Your task to perform on an android device: Show the shopping cart on ebay.com. Search for bose soundsport free on ebay.com, select the first entry, add it to the cart, then select checkout. Image 0: 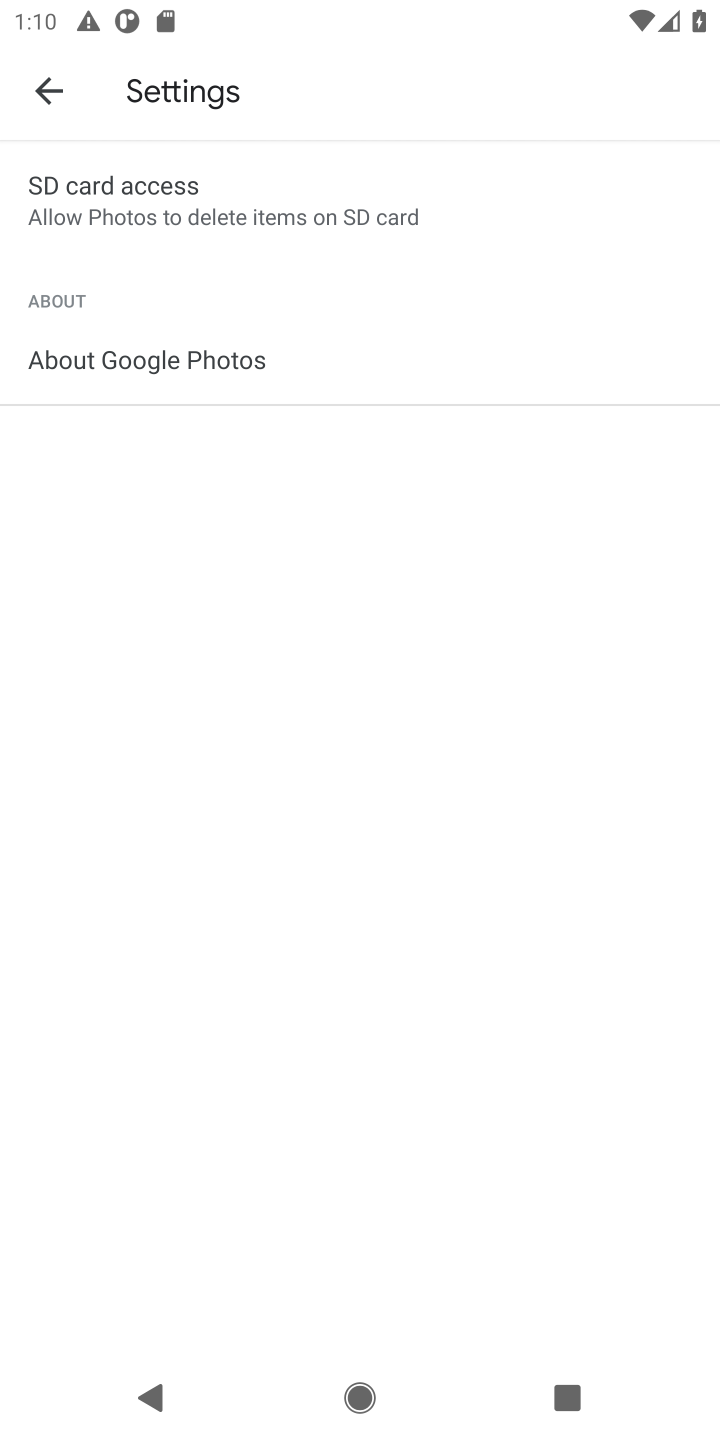
Step 0: press home button
Your task to perform on an android device: Show the shopping cart on ebay.com. Search for bose soundsport free on ebay.com, select the first entry, add it to the cart, then select checkout. Image 1: 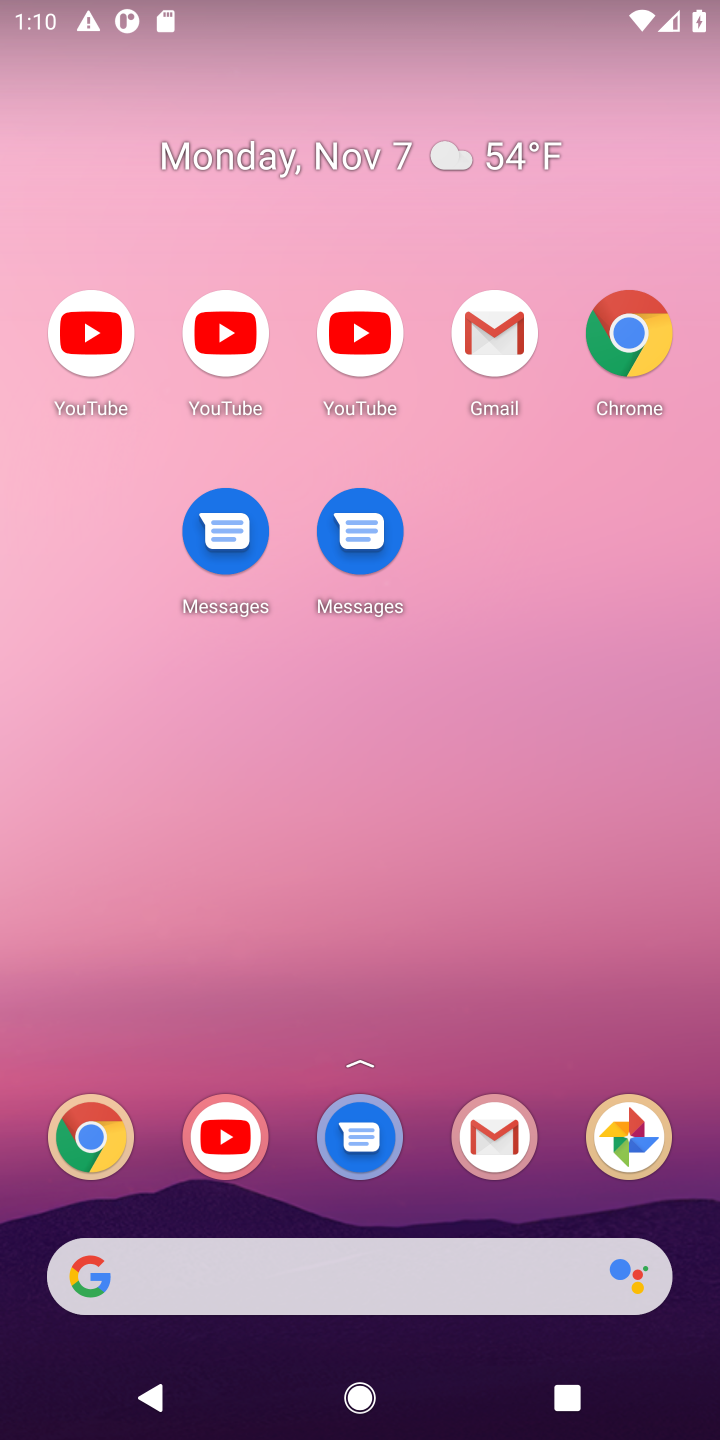
Step 1: drag from (444, 1131) to (491, 102)
Your task to perform on an android device: Show the shopping cart on ebay.com. Search for bose soundsport free on ebay.com, select the first entry, add it to the cart, then select checkout. Image 2: 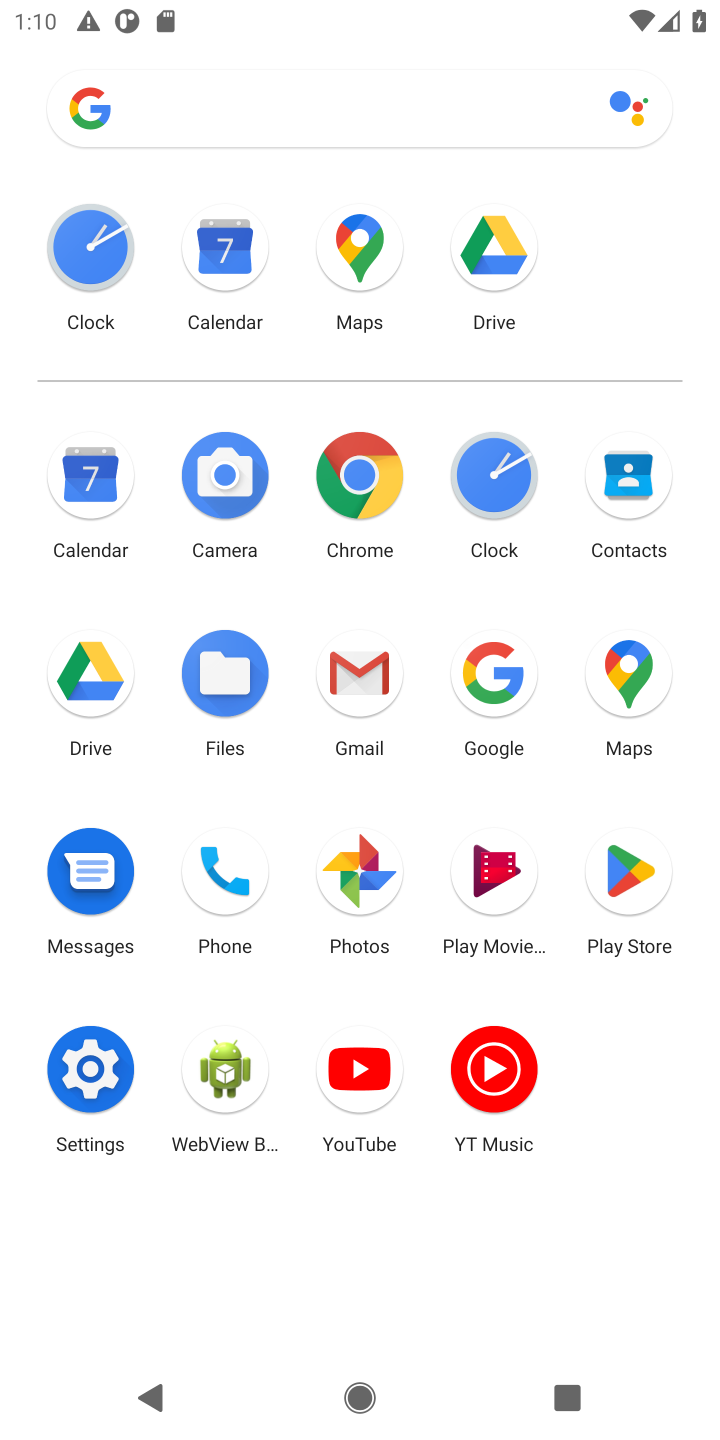
Step 2: click (354, 474)
Your task to perform on an android device: Show the shopping cart on ebay.com. Search for bose soundsport free on ebay.com, select the first entry, add it to the cart, then select checkout. Image 3: 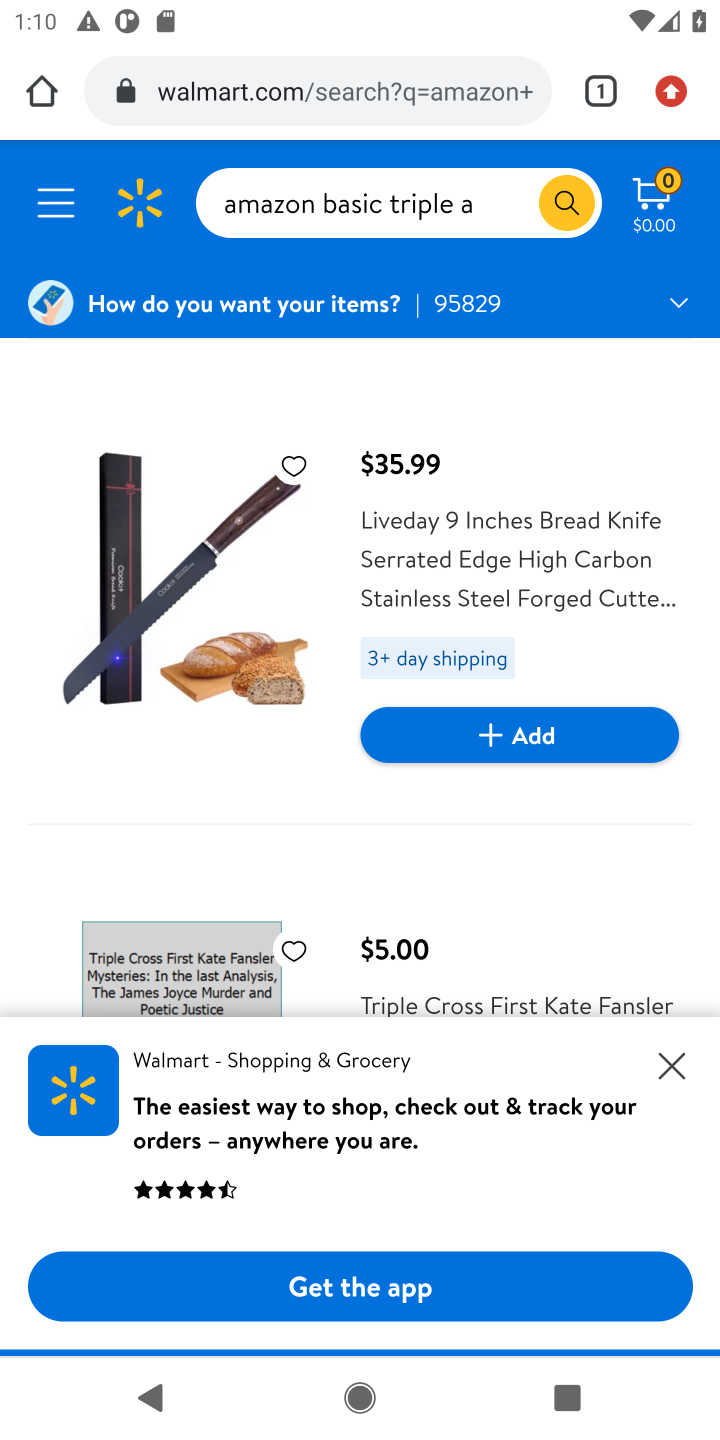
Step 3: click (381, 93)
Your task to perform on an android device: Show the shopping cart on ebay.com. Search for bose soundsport free on ebay.com, select the first entry, add it to the cart, then select checkout. Image 4: 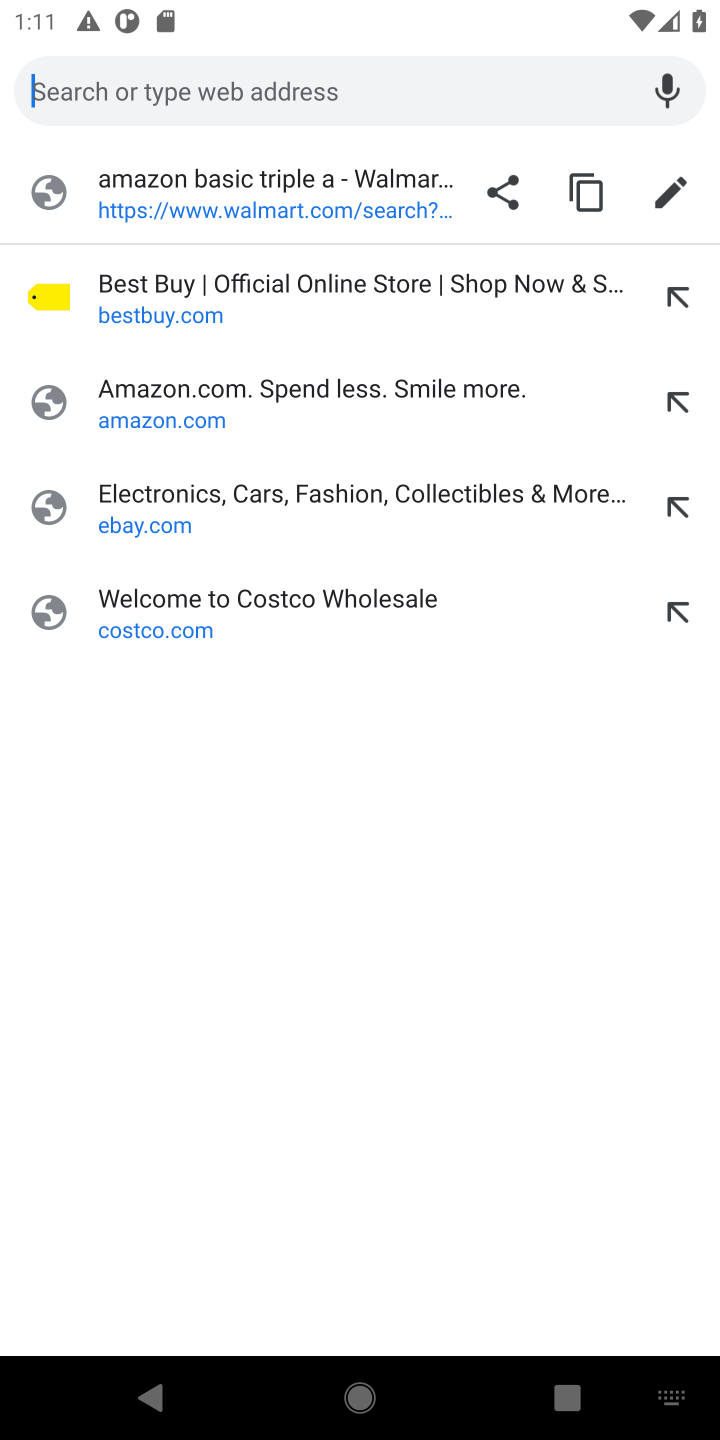
Step 4: type "ebay.com"
Your task to perform on an android device: Show the shopping cart on ebay.com. Search for bose soundsport free on ebay.com, select the first entry, add it to the cart, then select checkout. Image 5: 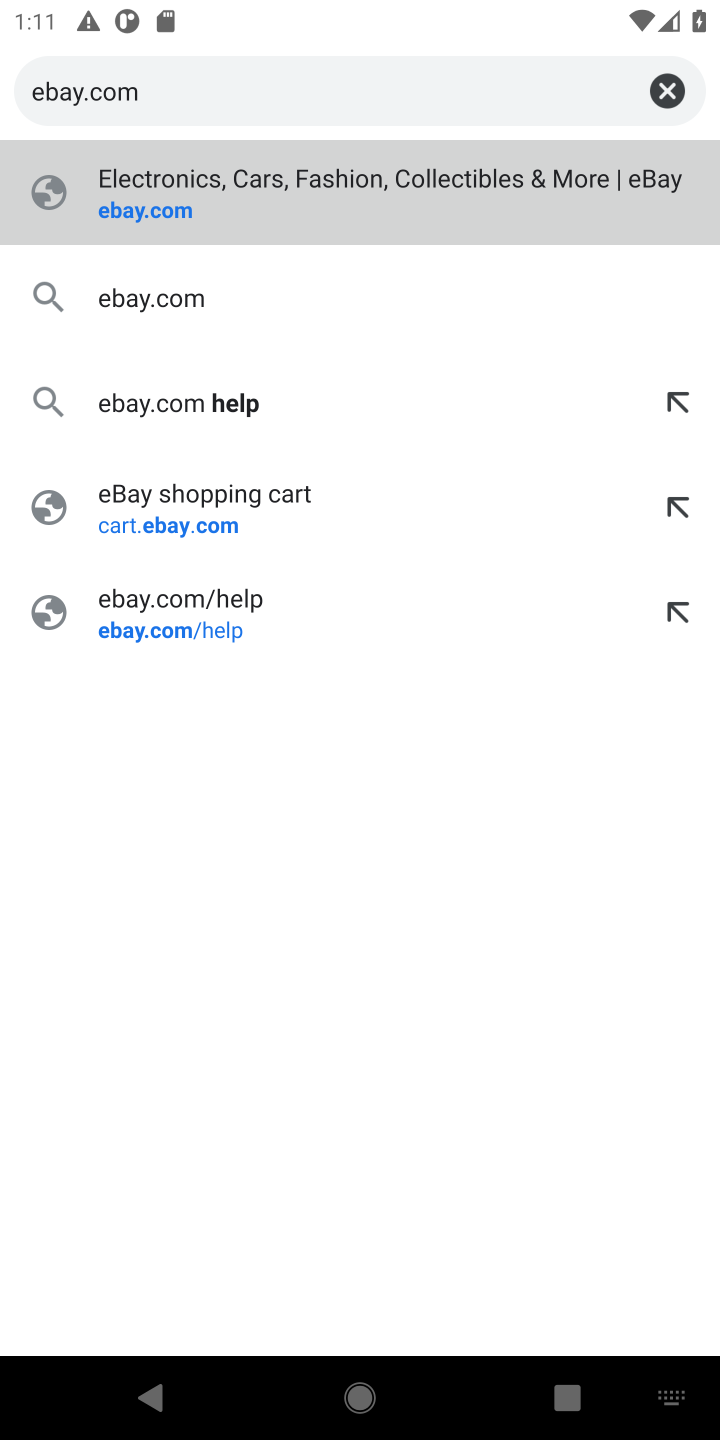
Step 5: press enter
Your task to perform on an android device: Show the shopping cart on ebay.com. Search for bose soundsport free on ebay.com, select the first entry, add it to the cart, then select checkout. Image 6: 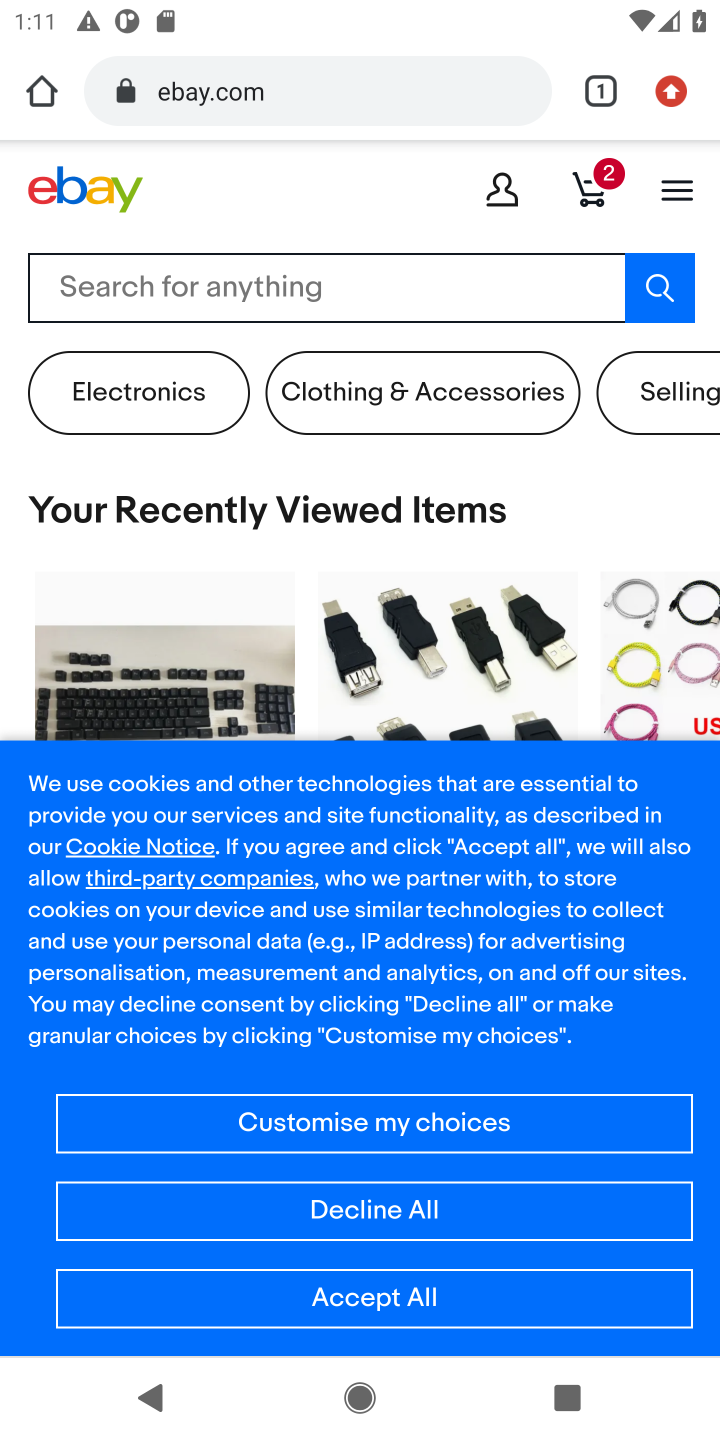
Step 6: click (612, 178)
Your task to perform on an android device: Show the shopping cart on ebay.com. Search for bose soundsport free on ebay.com, select the first entry, add it to the cart, then select checkout. Image 7: 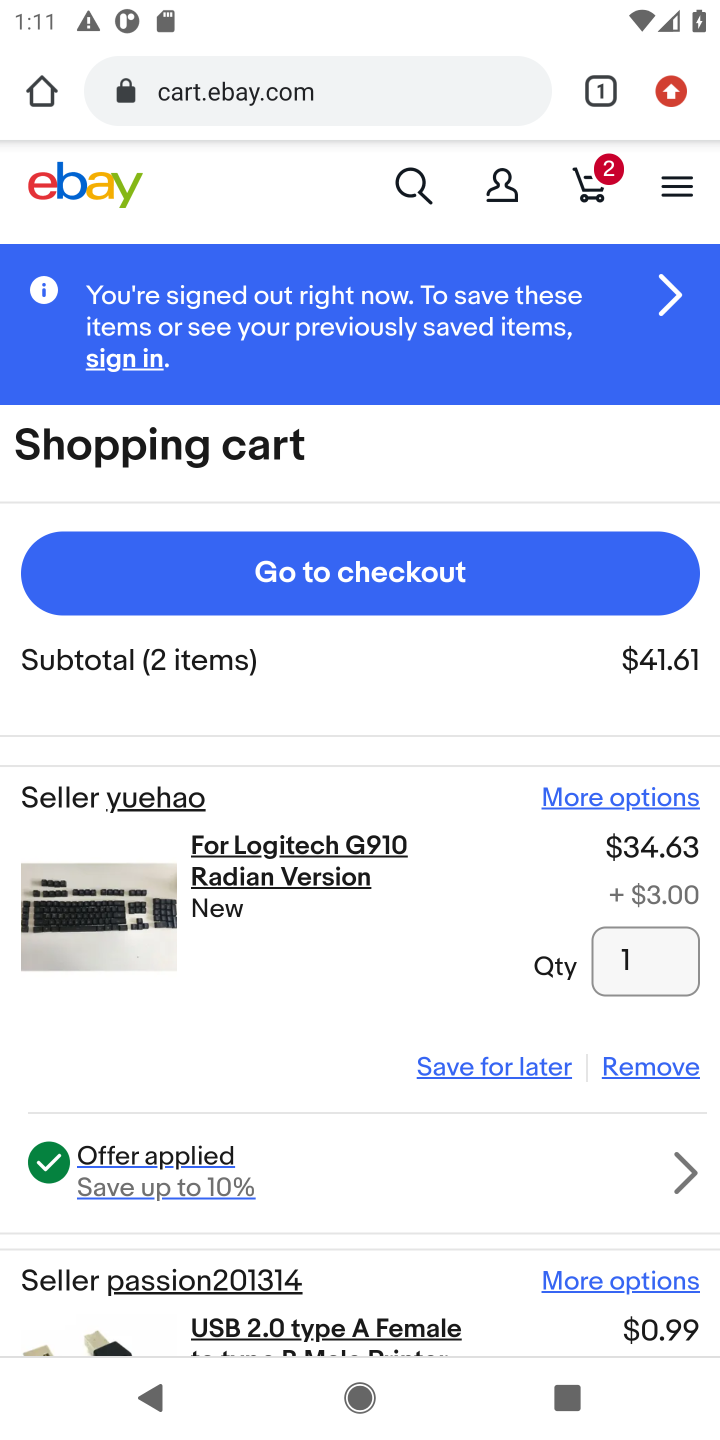
Step 7: click (415, 180)
Your task to perform on an android device: Show the shopping cart on ebay.com. Search for bose soundsport free on ebay.com, select the first entry, add it to the cart, then select checkout. Image 8: 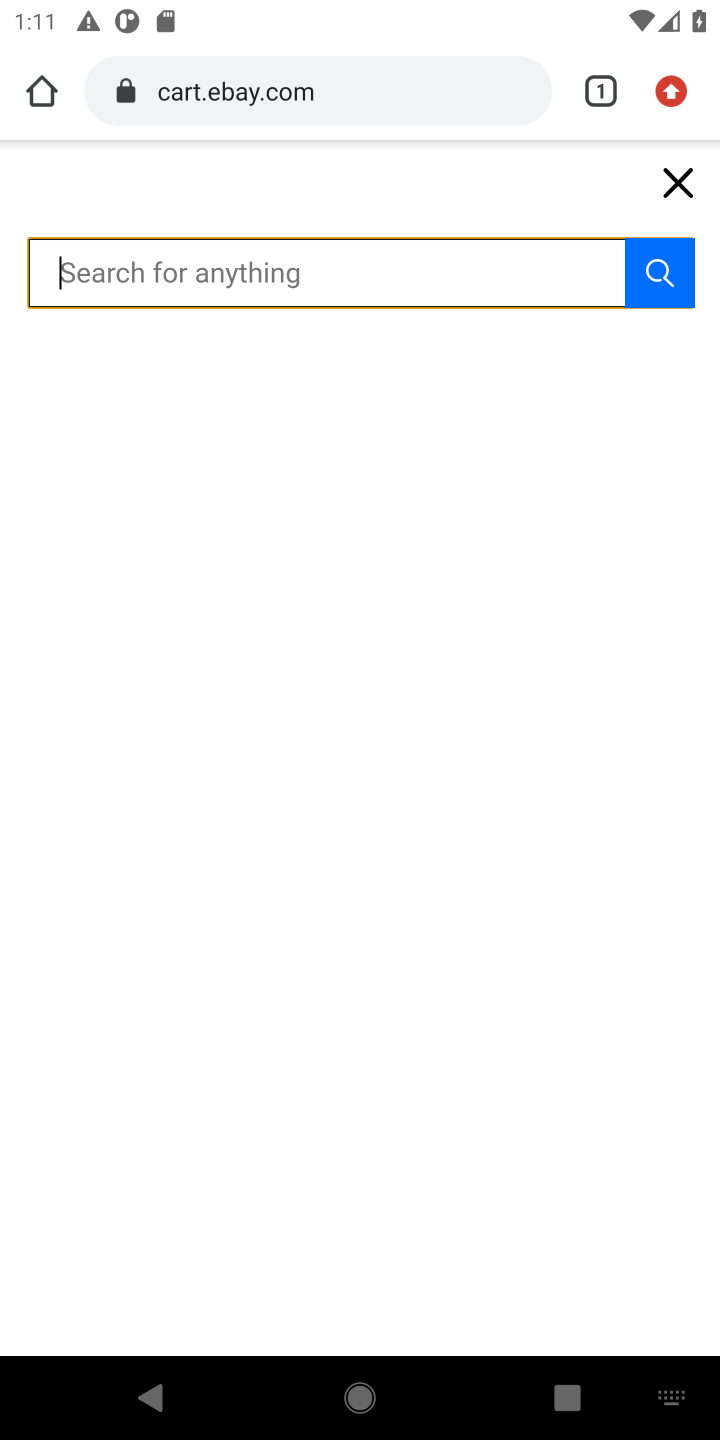
Step 8: click (510, 291)
Your task to perform on an android device: Show the shopping cart on ebay.com. Search for bose soundsport free on ebay.com, select the first entry, add it to the cart, then select checkout. Image 9: 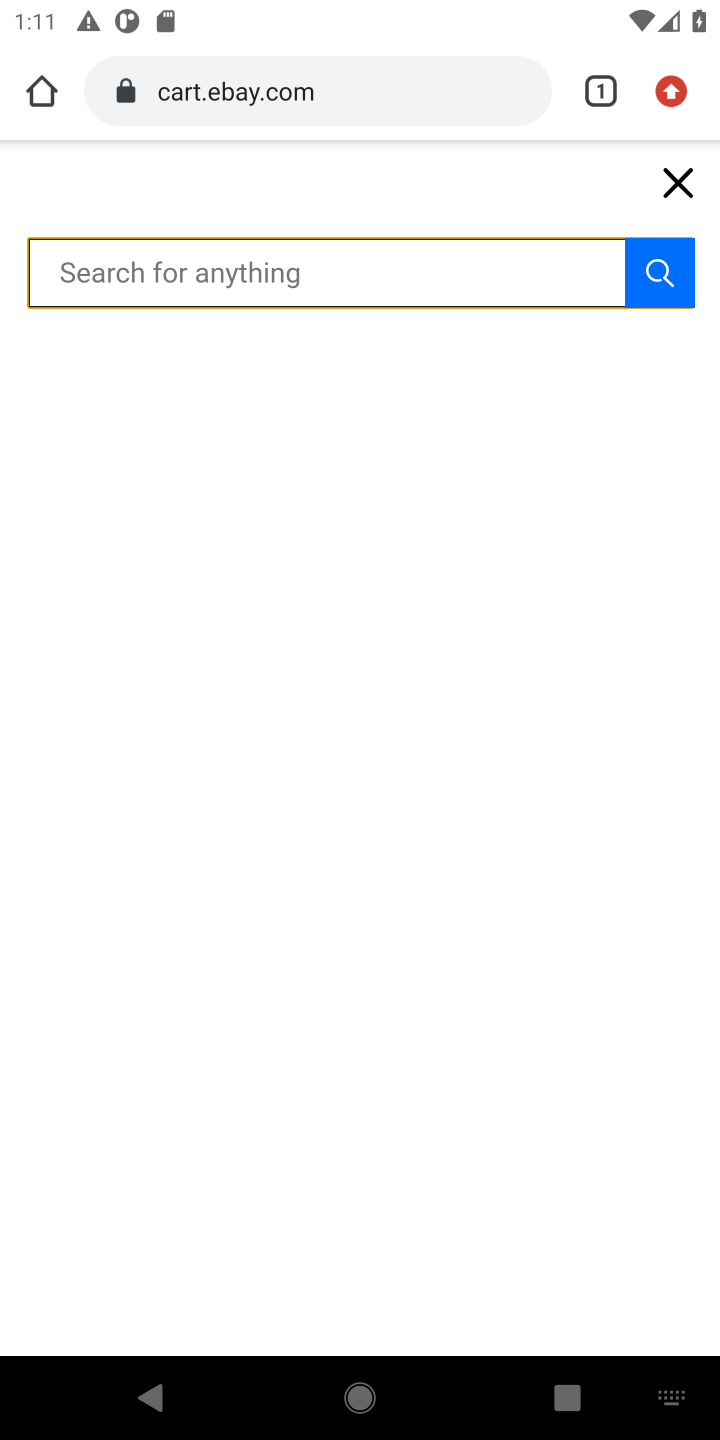
Step 9: type "bose soundsport free"
Your task to perform on an android device: Show the shopping cart on ebay.com. Search for bose soundsport free on ebay.com, select the first entry, add it to the cart, then select checkout. Image 10: 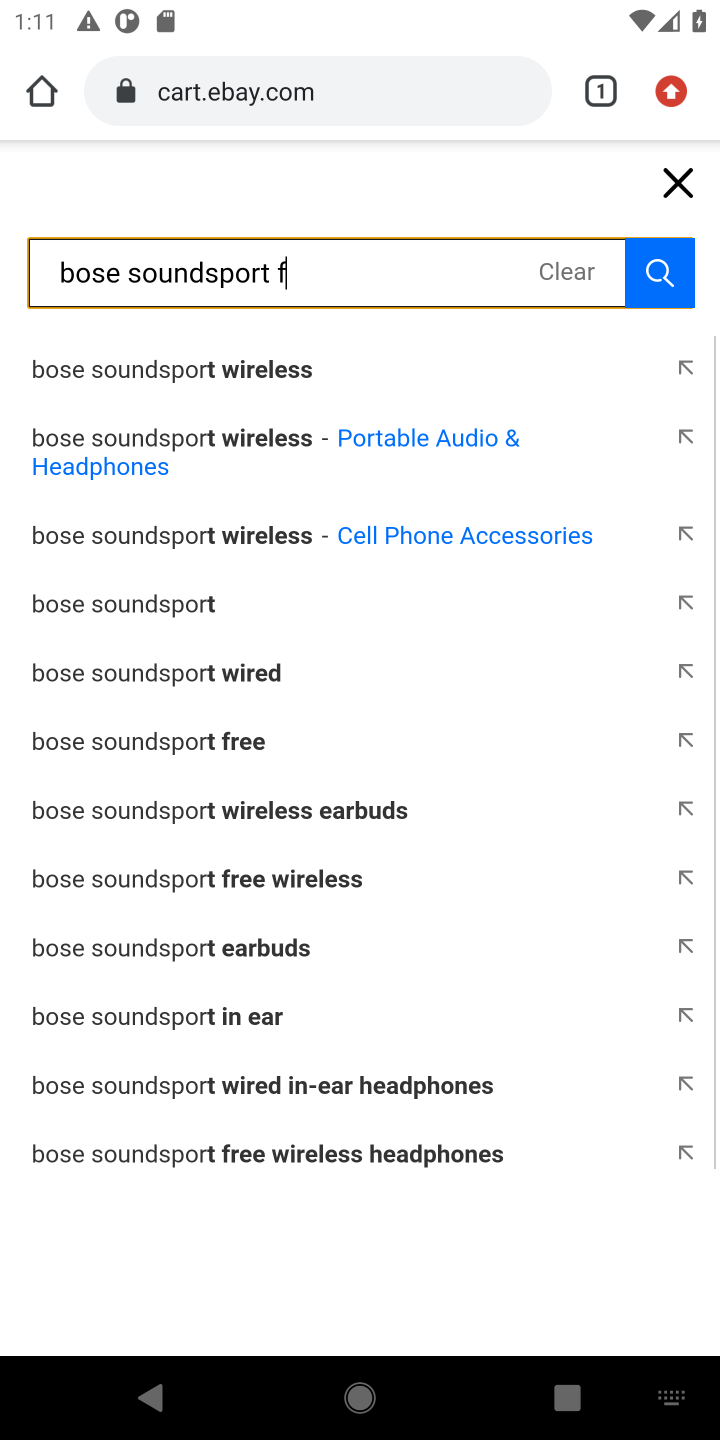
Step 10: press enter
Your task to perform on an android device: Show the shopping cart on ebay.com. Search for bose soundsport free on ebay.com, select the first entry, add it to the cart, then select checkout. Image 11: 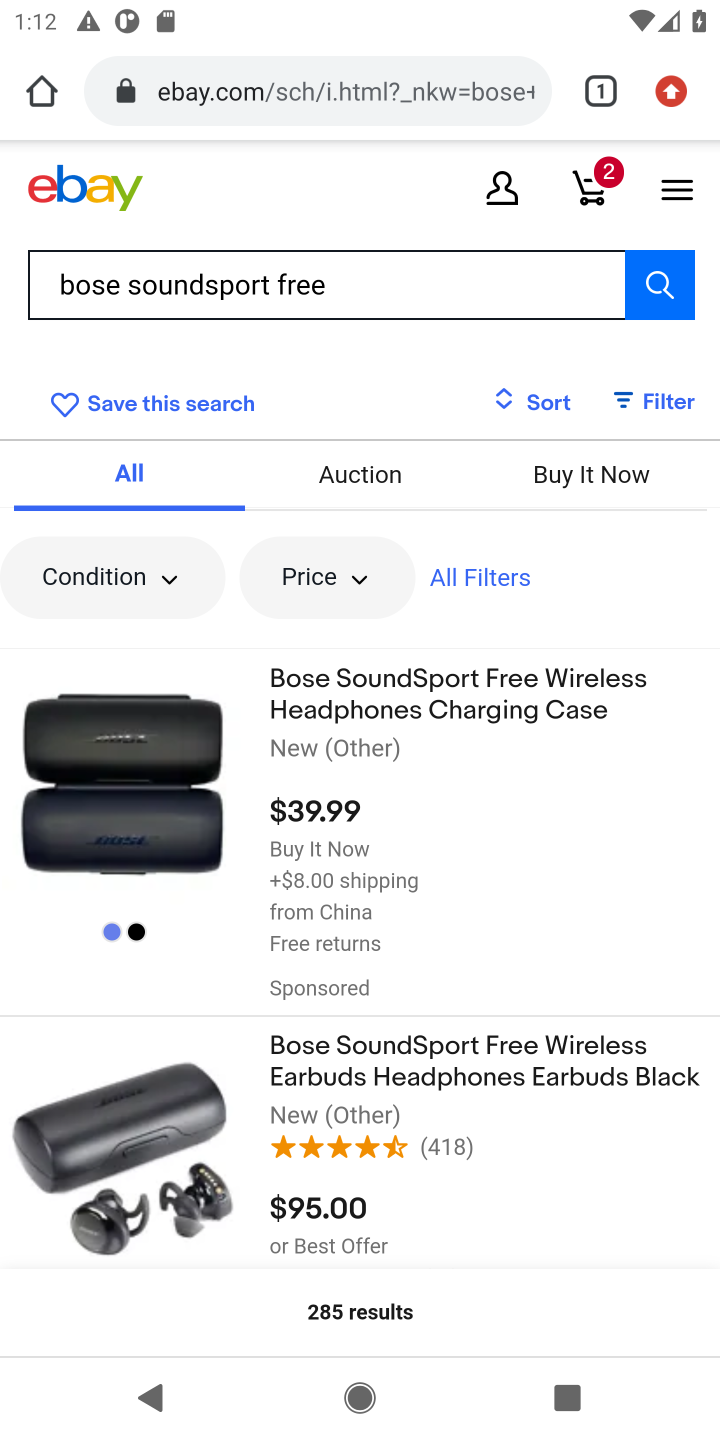
Step 11: click (512, 710)
Your task to perform on an android device: Show the shopping cart on ebay.com. Search for bose soundsport free on ebay.com, select the first entry, add it to the cart, then select checkout. Image 12: 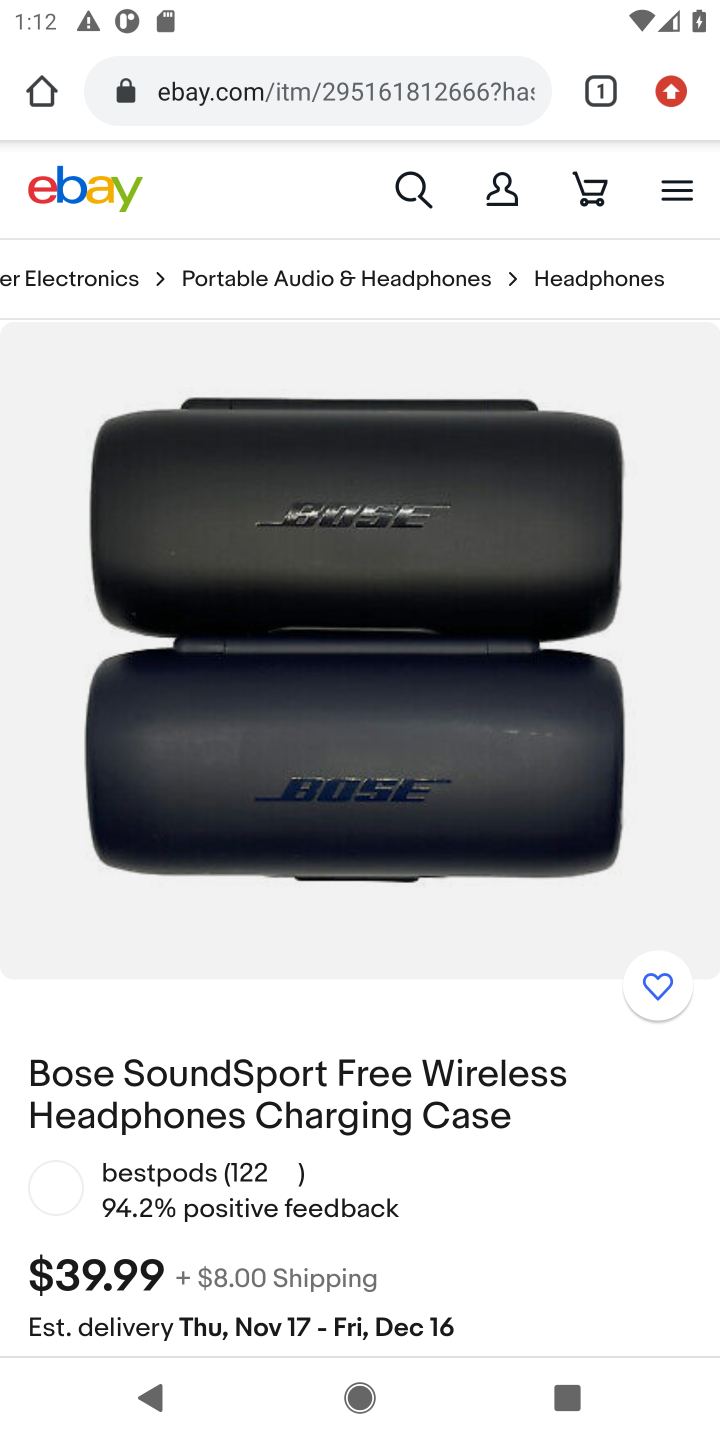
Step 12: drag from (430, 1084) to (367, 135)
Your task to perform on an android device: Show the shopping cart on ebay.com. Search for bose soundsport free on ebay.com, select the first entry, add it to the cart, then select checkout. Image 13: 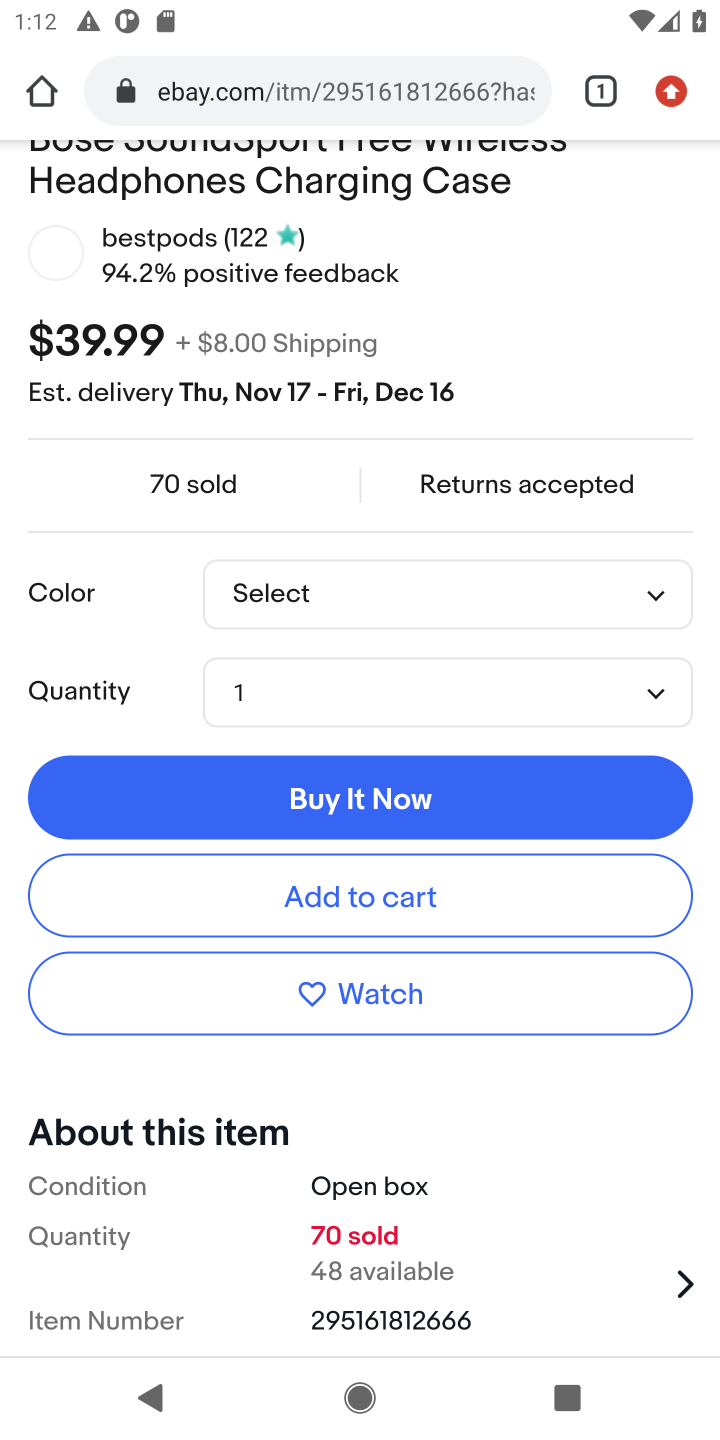
Step 13: drag from (335, 1115) to (384, 282)
Your task to perform on an android device: Show the shopping cart on ebay.com. Search for bose soundsport free on ebay.com, select the first entry, add it to the cart, then select checkout. Image 14: 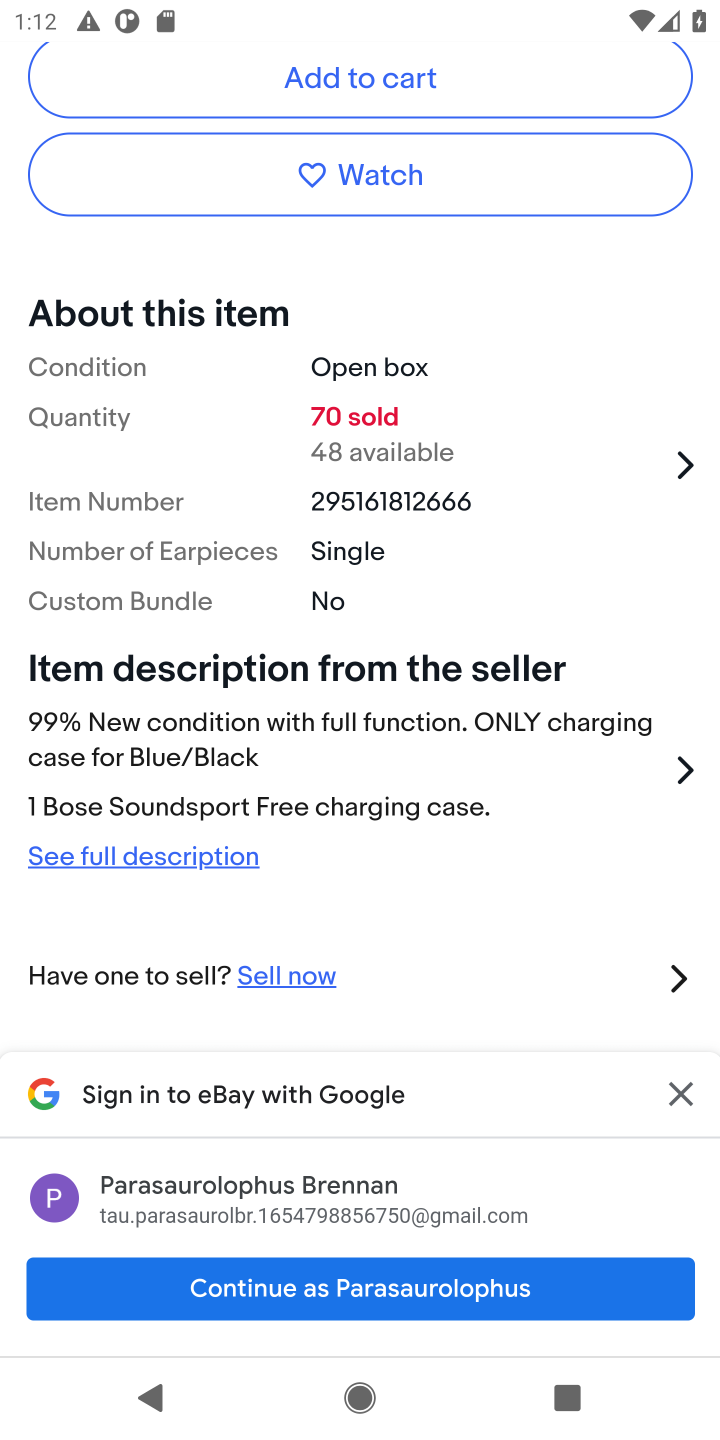
Step 14: drag from (400, 395) to (476, 1009)
Your task to perform on an android device: Show the shopping cart on ebay.com. Search for bose soundsport free on ebay.com, select the first entry, add it to the cart, then select checkout. Image 15: 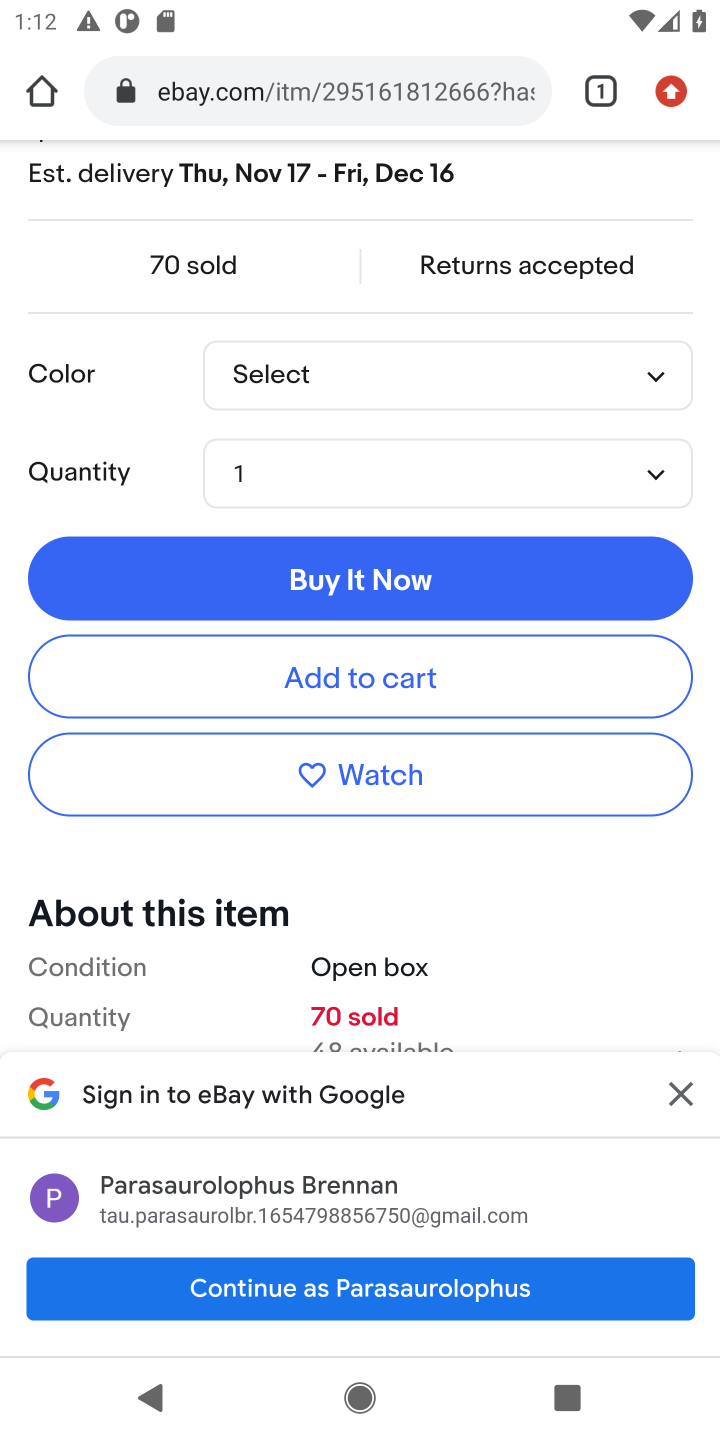
Step 15: click (366, 666)
Your task to perform on an android device: Show the shopping cart on ebay.com. Search for bose soundsport free on ebay.com, select the first entry, add it to the cart, then select checkout. Image 16: 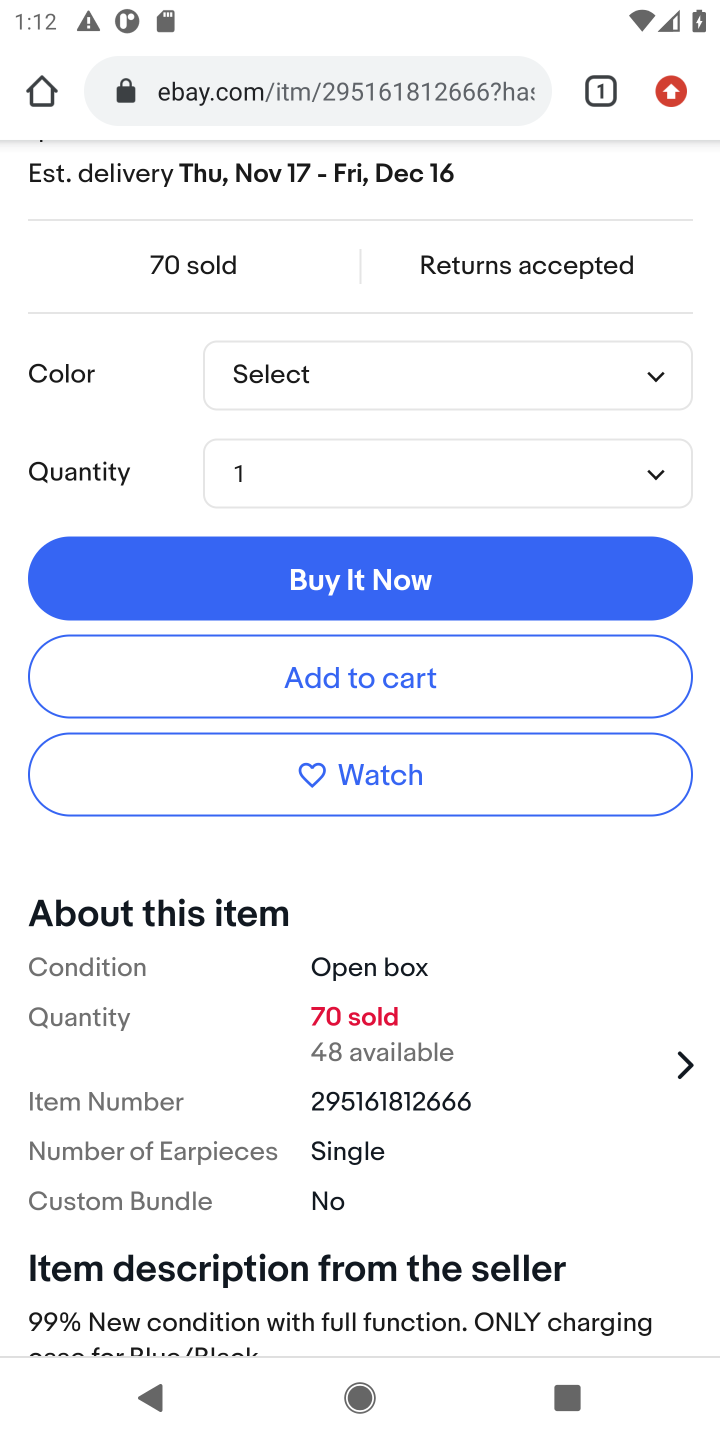
Step 16: click (446, 367)
Your task to perform on an android device: Show the shopping cart on ebay.com. Search for bose soundsport free on ebay.com, select the first entry, add it to the cart, then select checkout. Image 17: 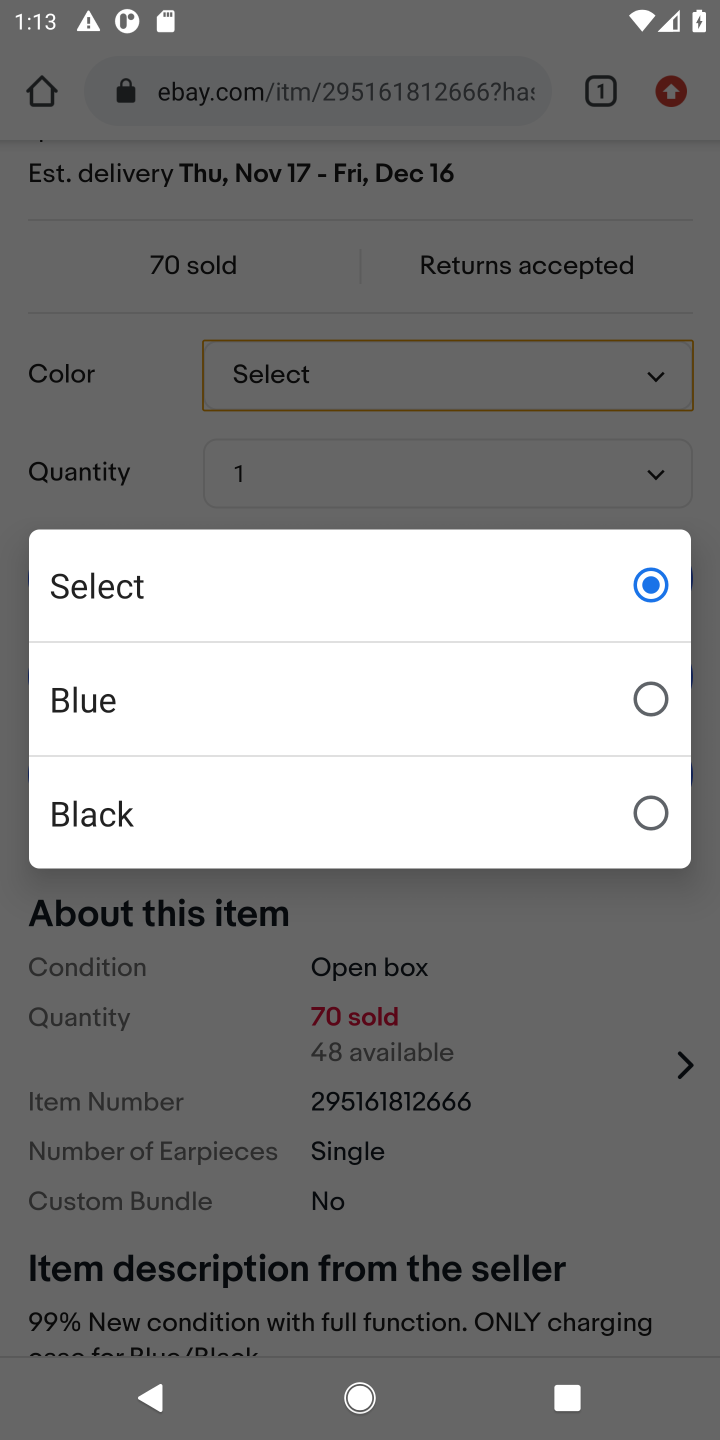
Step 17: click (383, 676)
Your task to perform on an android device: Show the shopping cart on ebay.com. Search for bose soundsport free on ebay.com, select the first entry, add it to the cart, then select checkout. Image 18: 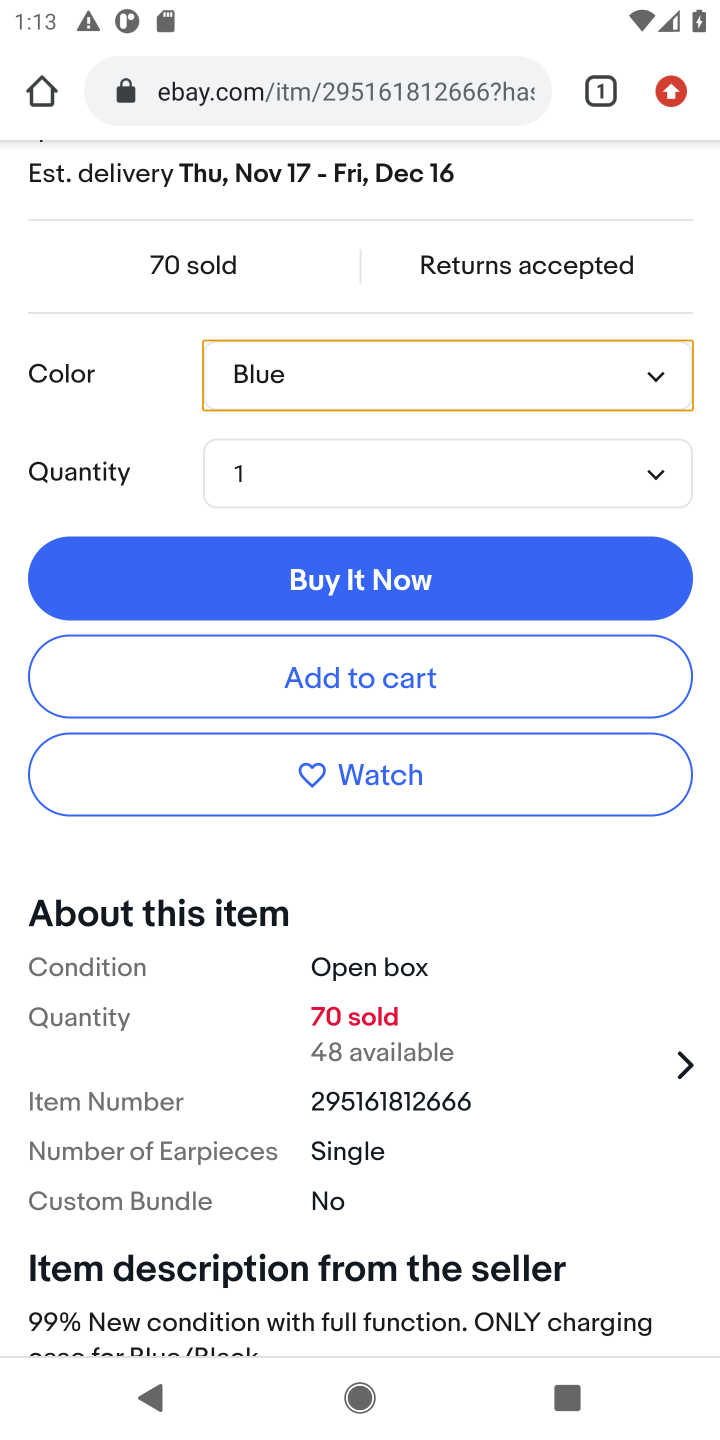
Step 18: click (585, 670)
Your task to perform on an android device: Show the shopping cart on ebay.com. Search for bose soundsport free on ebay.com, select the first entry, add it to the cart, then select checkout. Image 19: 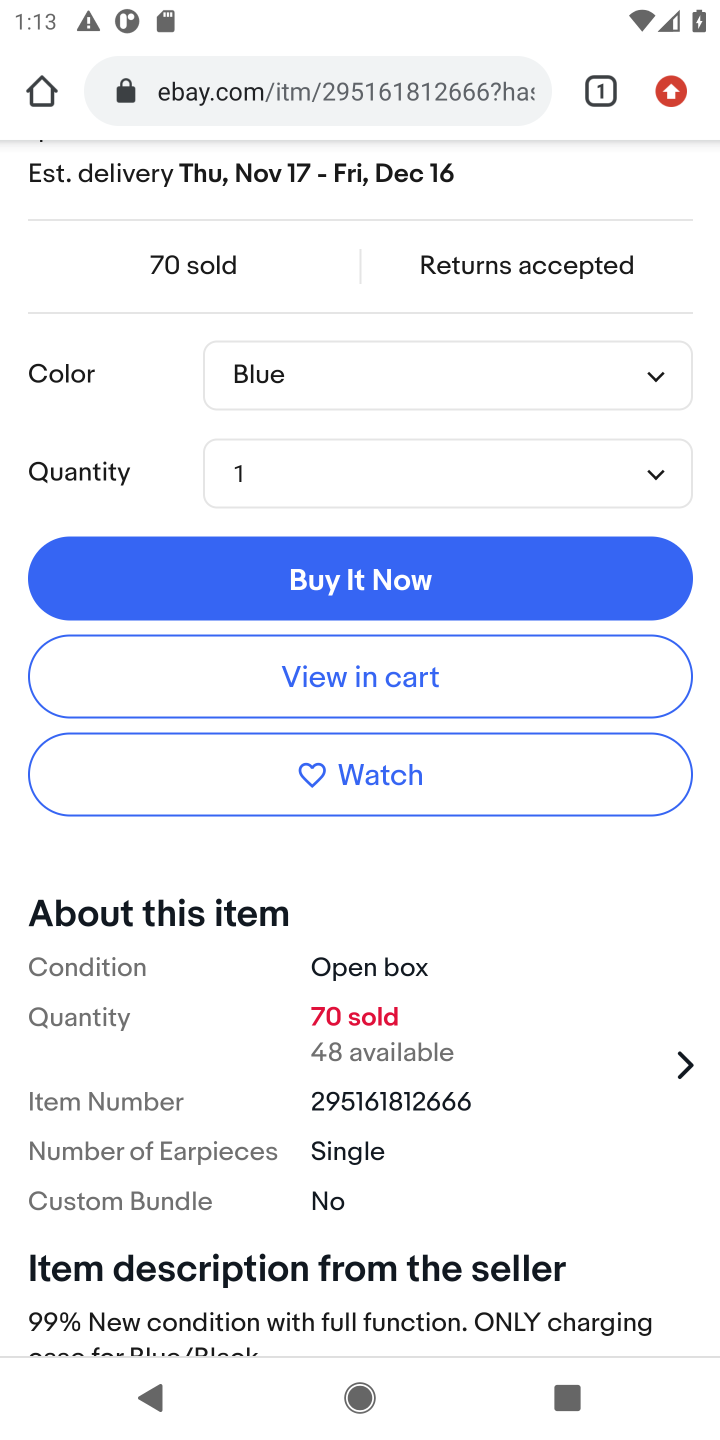
Step 19: click (374, 682)
Your task to perform on an android device: Show the shopping cart on ebay.com. Search for bose soundsport free on ebay.com, select the first entry, add it to the cart, then select checkout. Image 20: 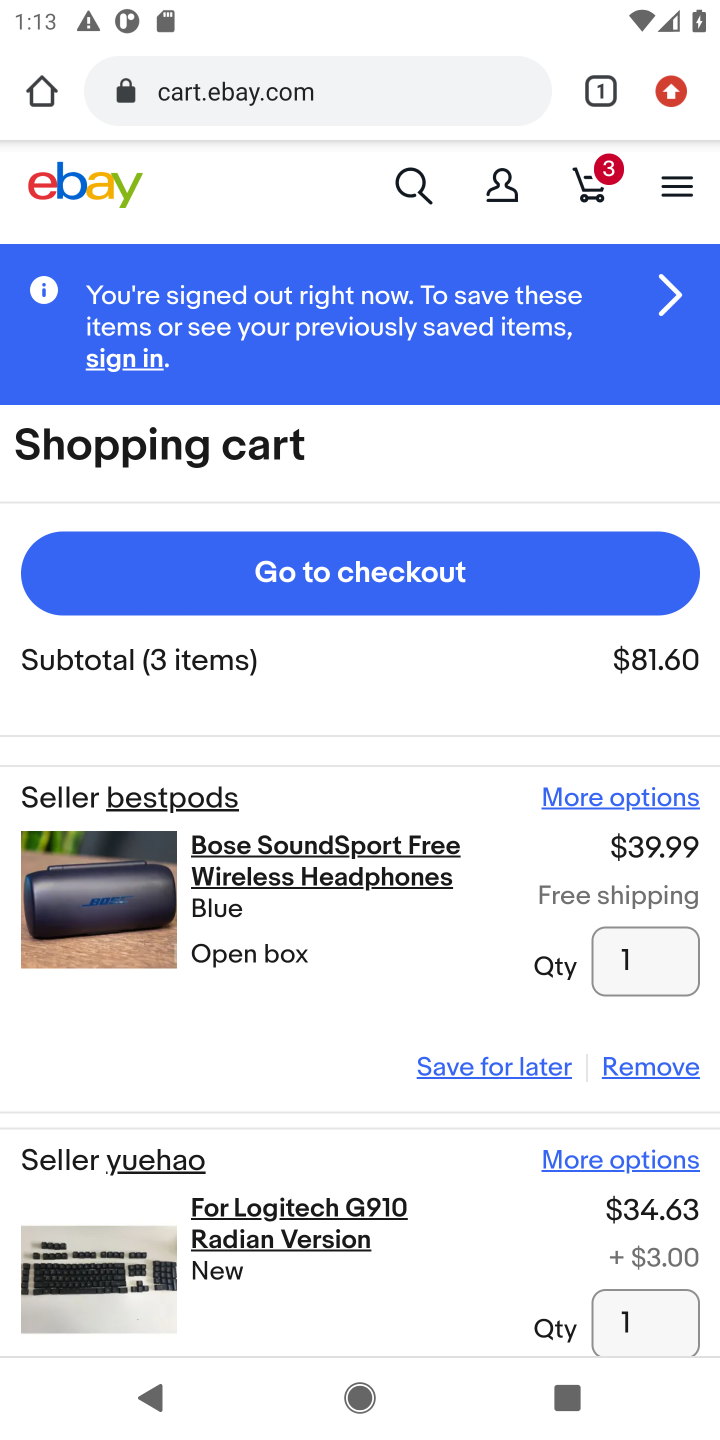
Step 20: click (438, 577)
Your task to perform on an android device: Show the shopping cart on ebay.com. Search for bose soundsport free on ebay.com, select the first entry, add it to the cart, then select checkout. Image 21: 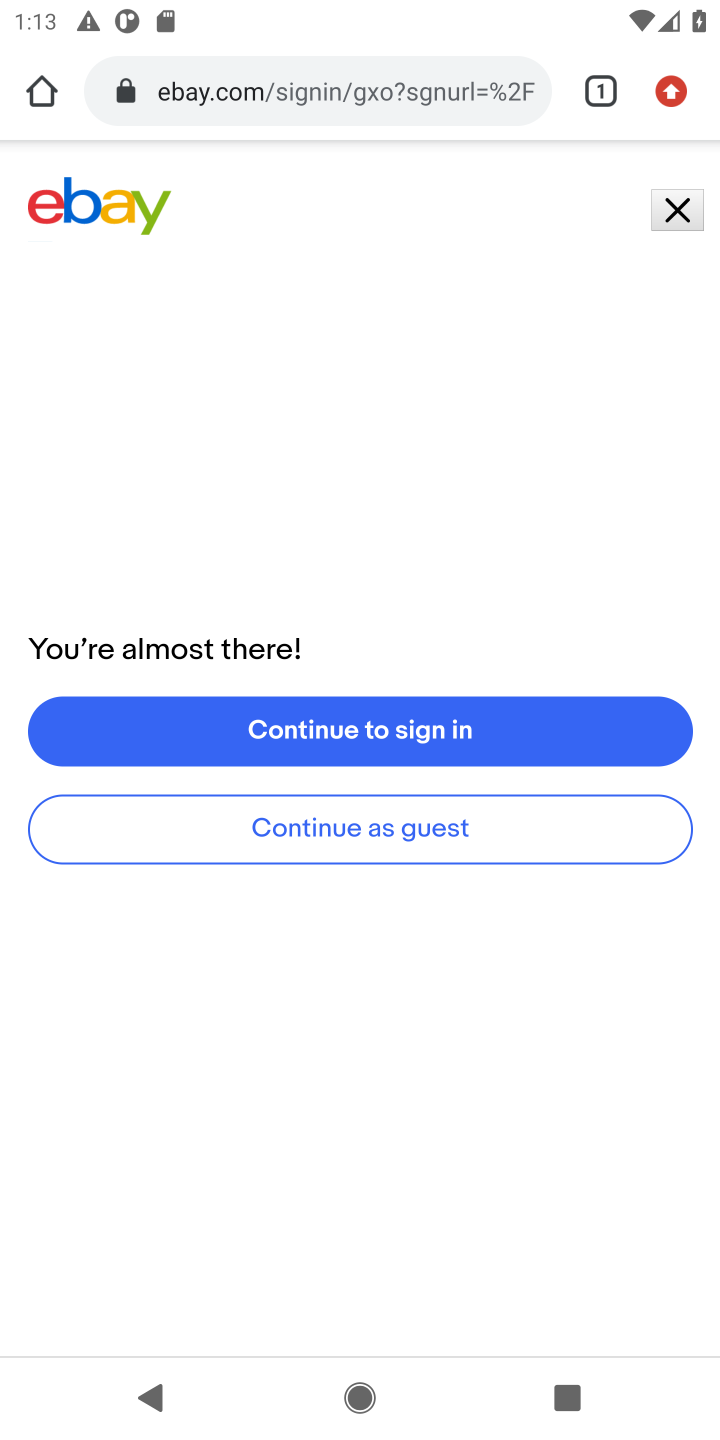
Step 21: task complete